Your task to perform on an android device: Open Google Image 0: 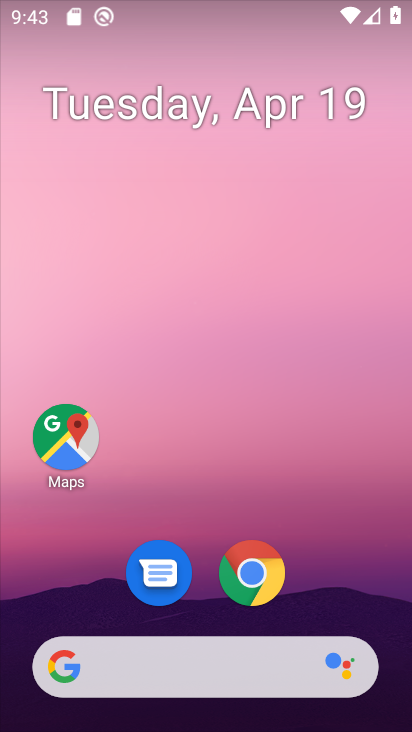
Step 0: drag from (205, 616) to (260, 57)
Your task to perform on an android device: Open Google Image 1: 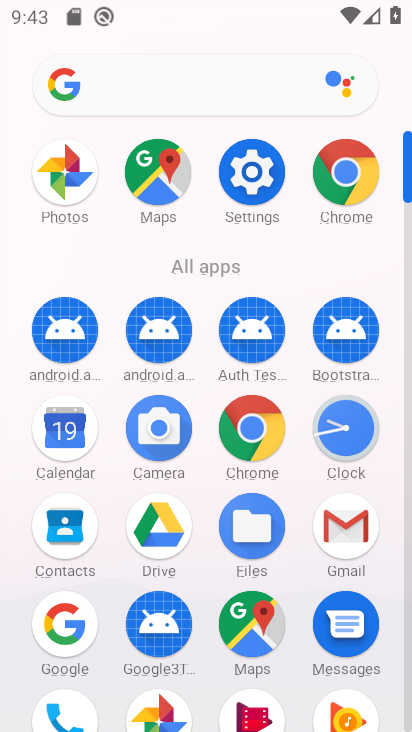
Step 1: click (63, 618)
Your task to perform on an android device: Open Google Image 2: 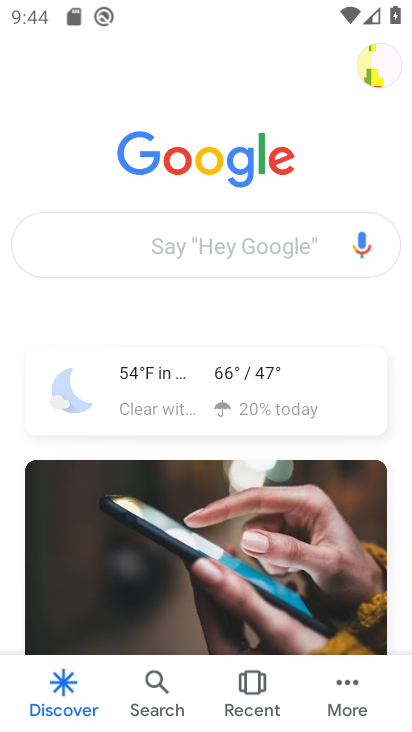
Step 2: task complete